Your task to perform on an android device: turn off sleep mode Image 0: 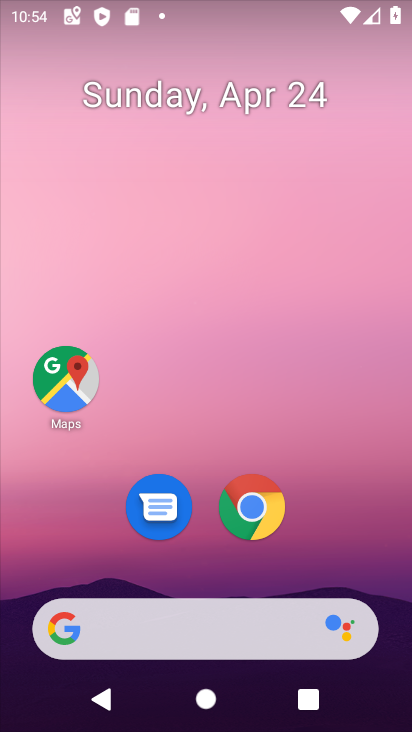
Step 0: drag from (307, 5) to (340, 468)
Your task to perform on an android device: turn off sleep mode Image 1: 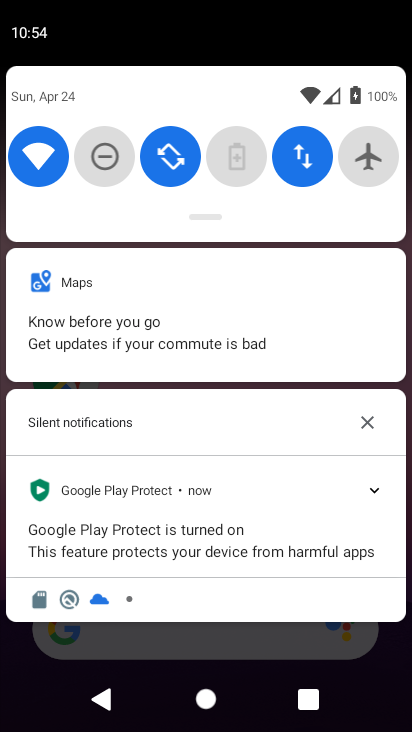
Step 1: drag from (194, 207) to (270, 598)
Your task to perform on an android device: turn off sleep mode Image 2: 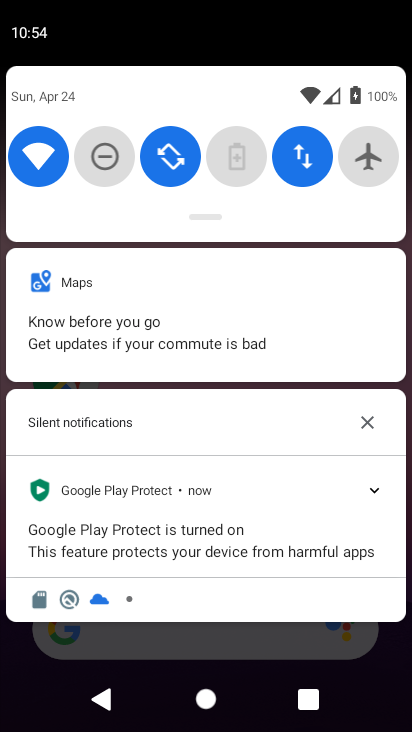
Step 2: drag from (236, 205) to (291, 543)
Your task to perform on an android device: turn off sleep mode Image 3: 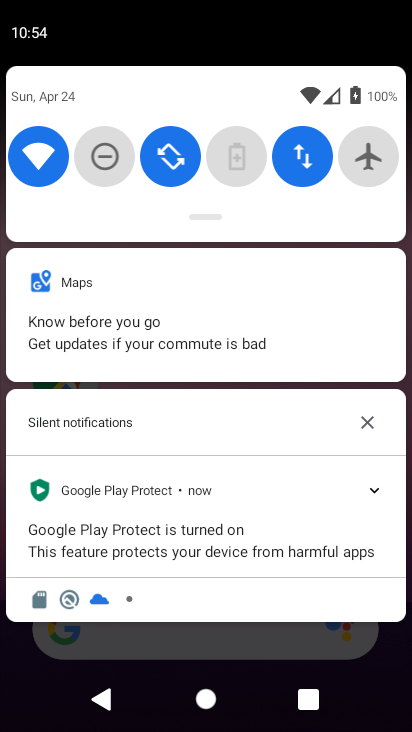
Step 3: drag from (223, 207) to (220, 523)
Your task to perform on an android device: turn off sleep mode Image 4: 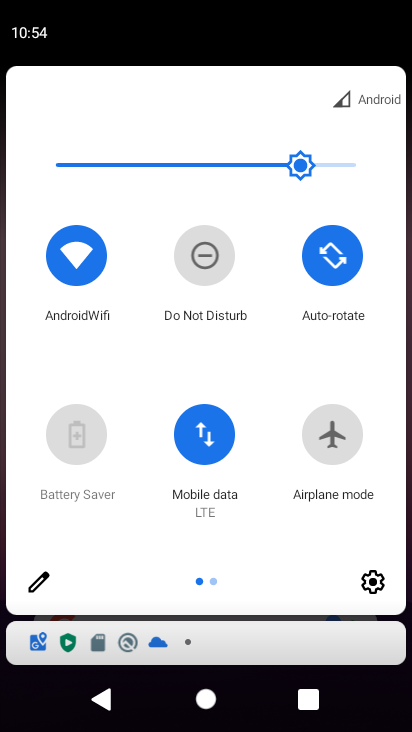
Step 4: click (31, 577)
Your task to perform on an android device: turn off sleep mode Image 5: 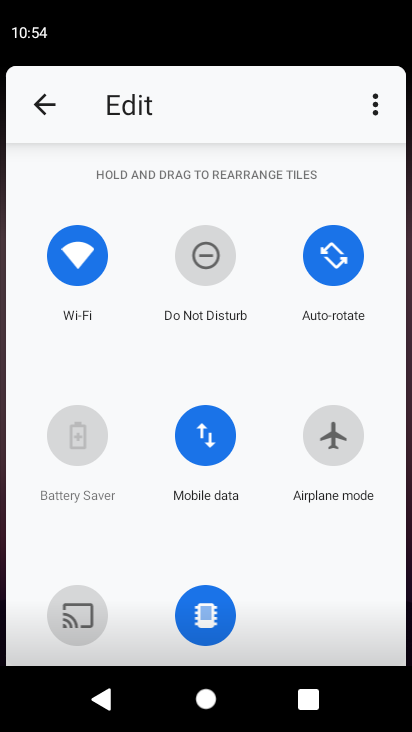
Step 5: click (78, 542)
Your task to perform on an android device: turn off sleep mode Image 6: 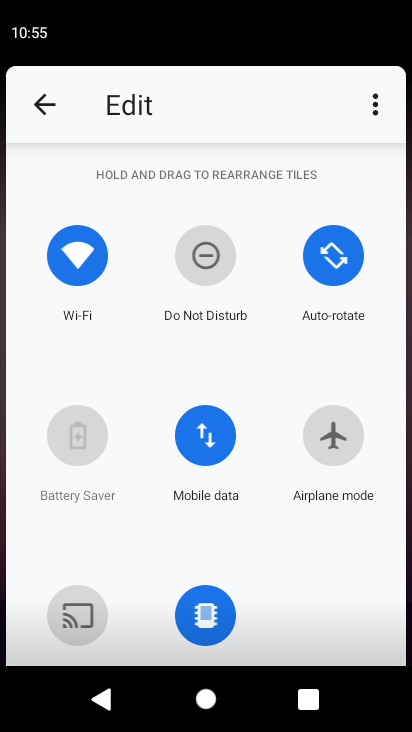
Step 6: task complete